Your task to perform on an android device: Clear the shopping cart on amazon.com. Add "apple airpods pro" to the cart on amazon.com, then select checkout. Image 0: 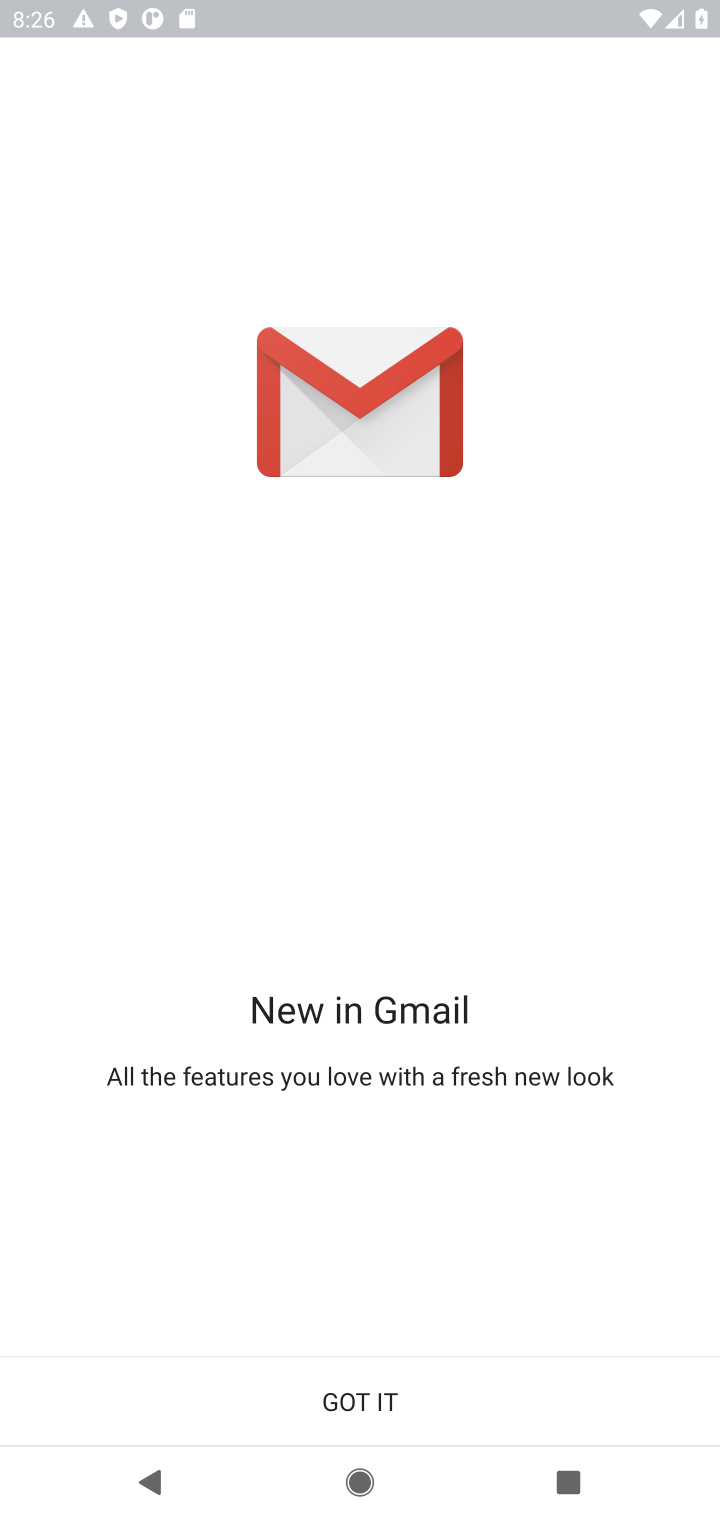
Step 0: press home button
Your task to perform on an android device: Clear the shopping cart on amazon.com. Add "apple airpods pro" to the cart on amazon.com, then select checkout. Image 1: 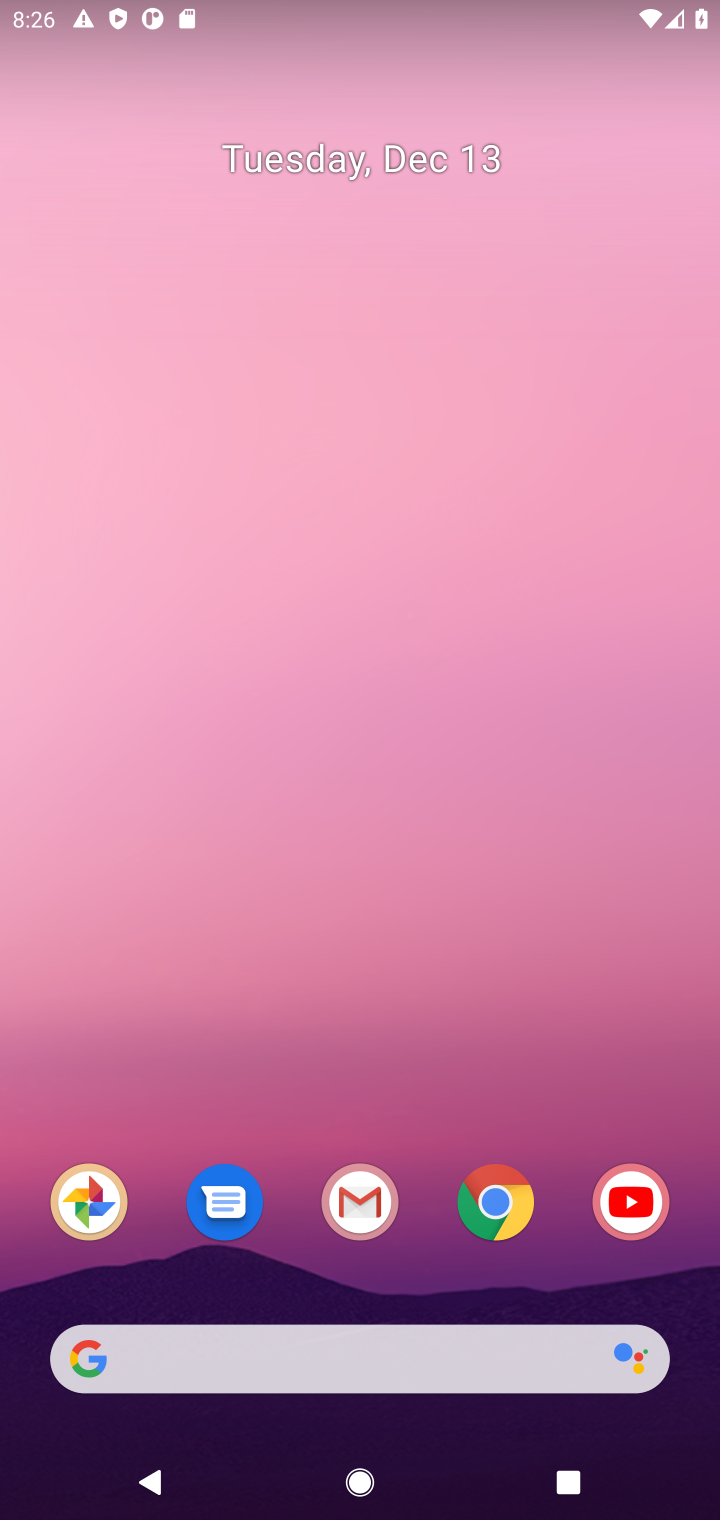
Step 1: click (518, 1226)
Your task to perform on an android device: Clear the shopping cart on amazon.com. Add "apple airpods pro" to the cart on amazon.com, then select checkout. Image 2: 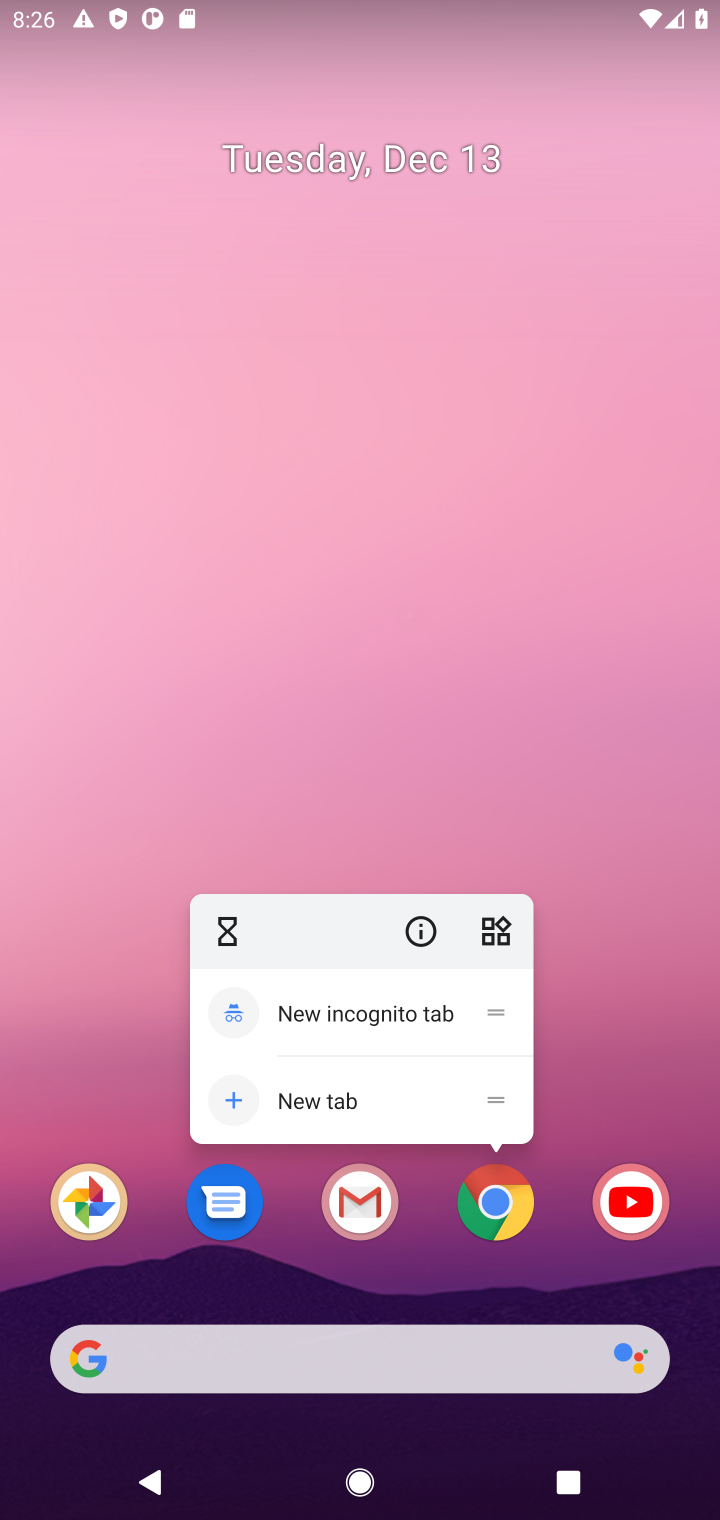
Step 2: click (539, 1235)
Your task to perform on an android device: Clear the shopping cart on amazon.com. Add "apple airpods pro" to the cart on amazon.com, then select checkout. Image 3: 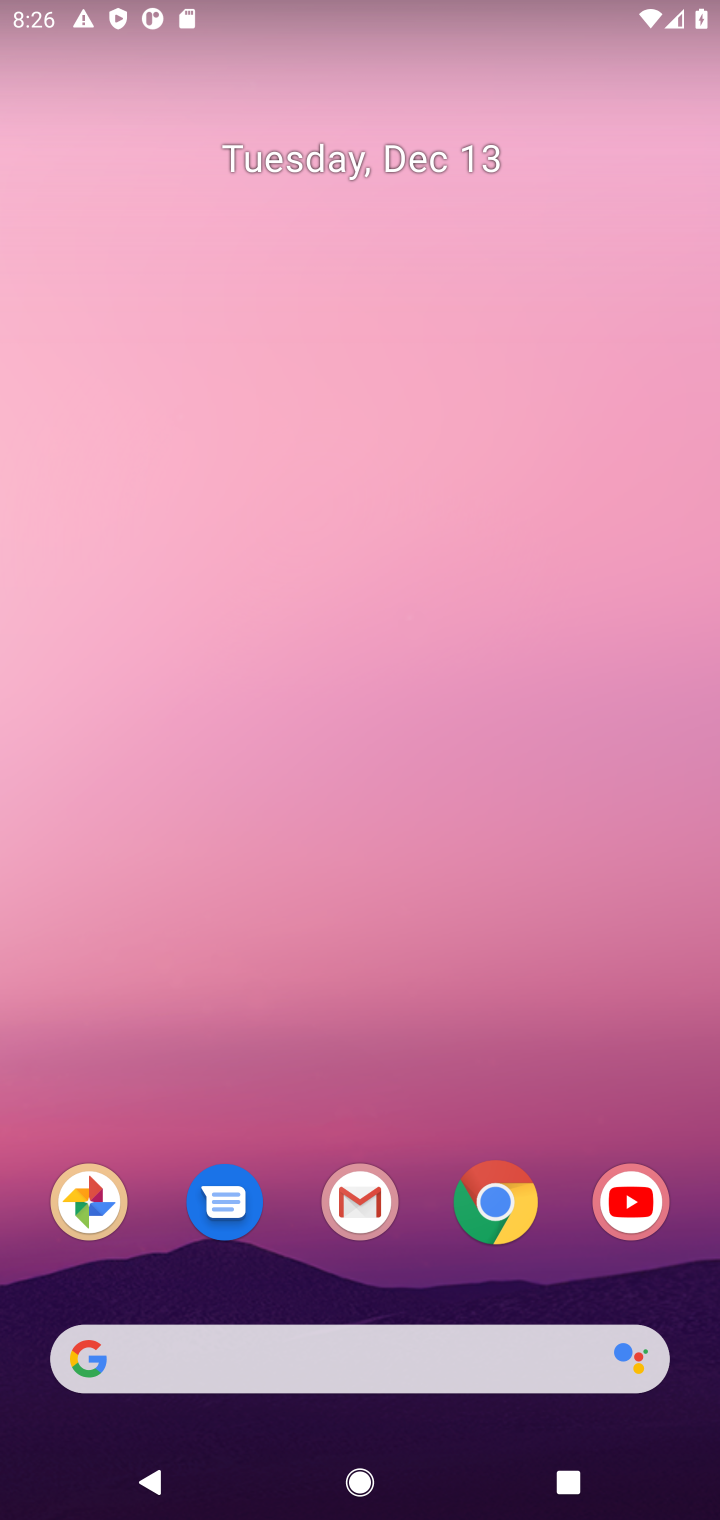
Step 3: click (485, 1219)
Your task to perform on an android device: Clear the shopping cart on amazon.com. Add "apple airpods pro" to the cart on amazon.com, then select checkout. Image 4: 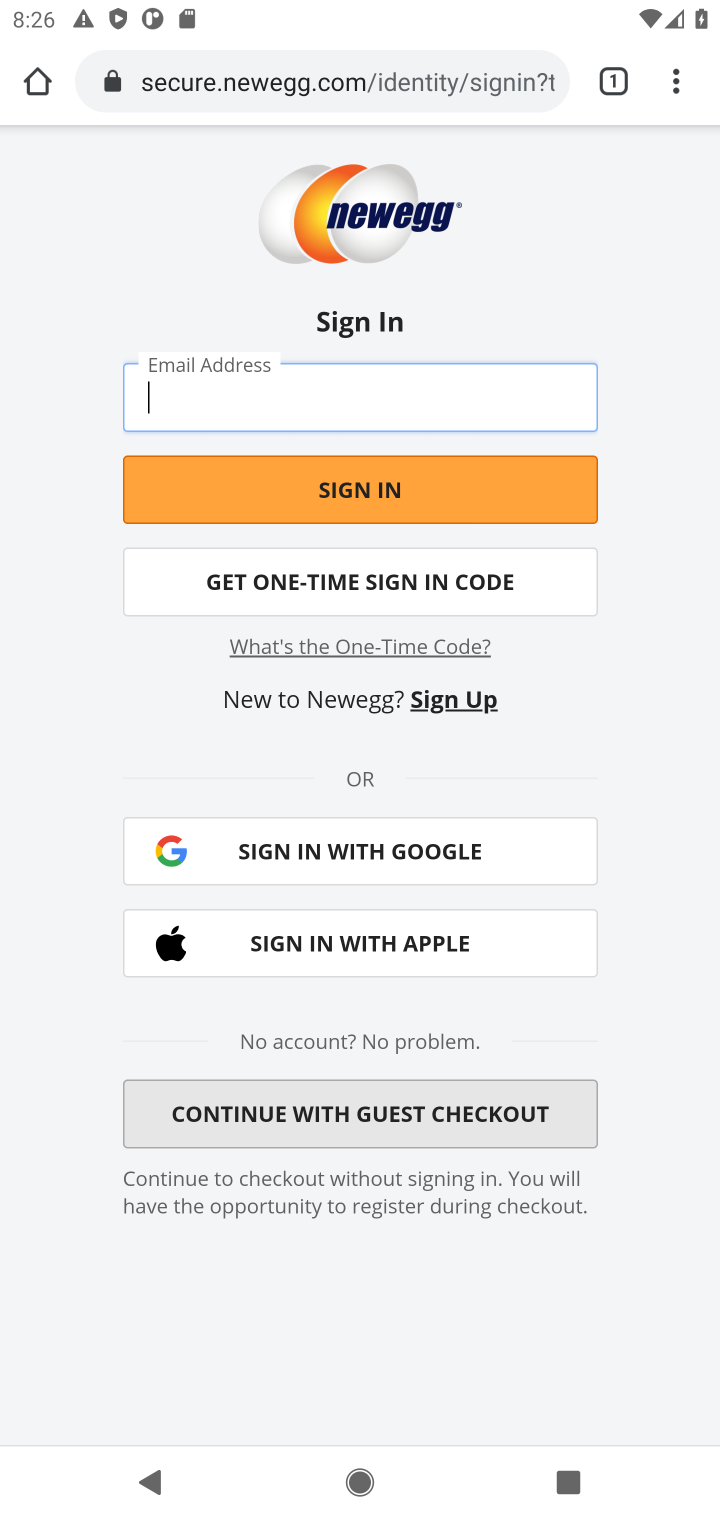
Step 4: click (393, 83)
Your task to perform on an android device: Clear the shopping cart on amazon.com. Add "apple airpods pro" to the cart on amazon.com, then select checkout. Image 5: 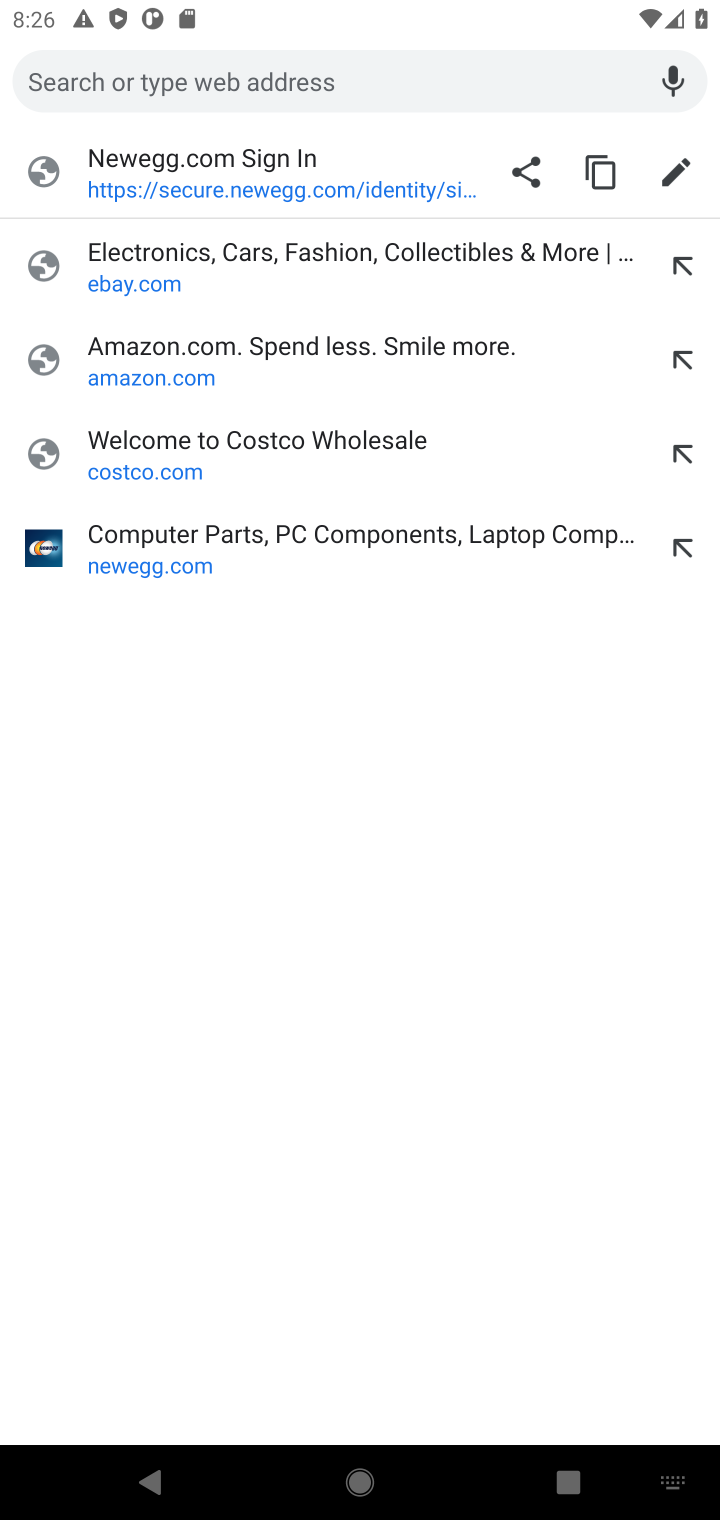
Step 5: click (141, 375)
Your task to perform on an android device: Clear the shopping cart on amazon.com. Add "apple airpods pro" to the cart on amazon.com, then select checkout. Image 6: 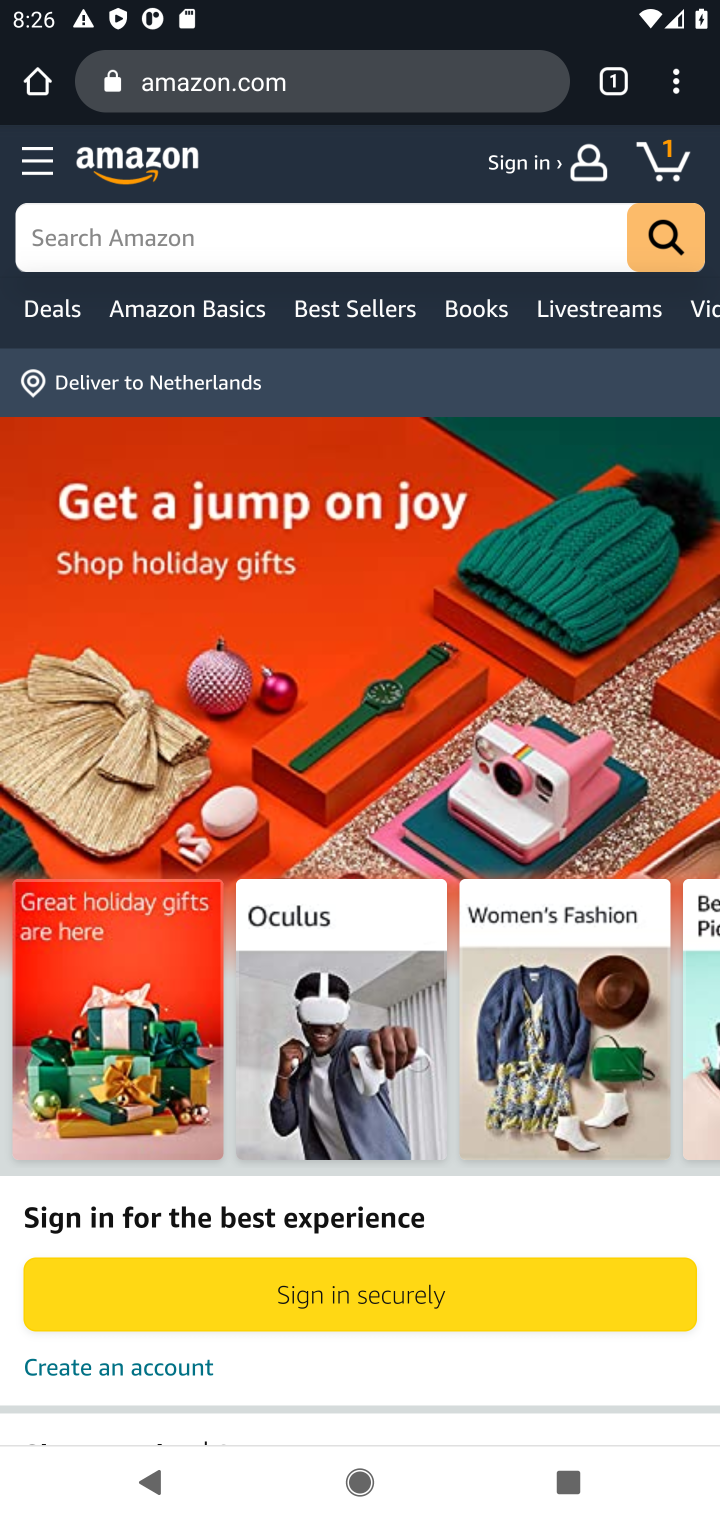
Step 6: click (663, 152)
Your task to perform on an android device: Clear the shopping cart on amazon.com. Add "apple airpods pro" to the cart on amazon.com, then select checkout. Image 7: 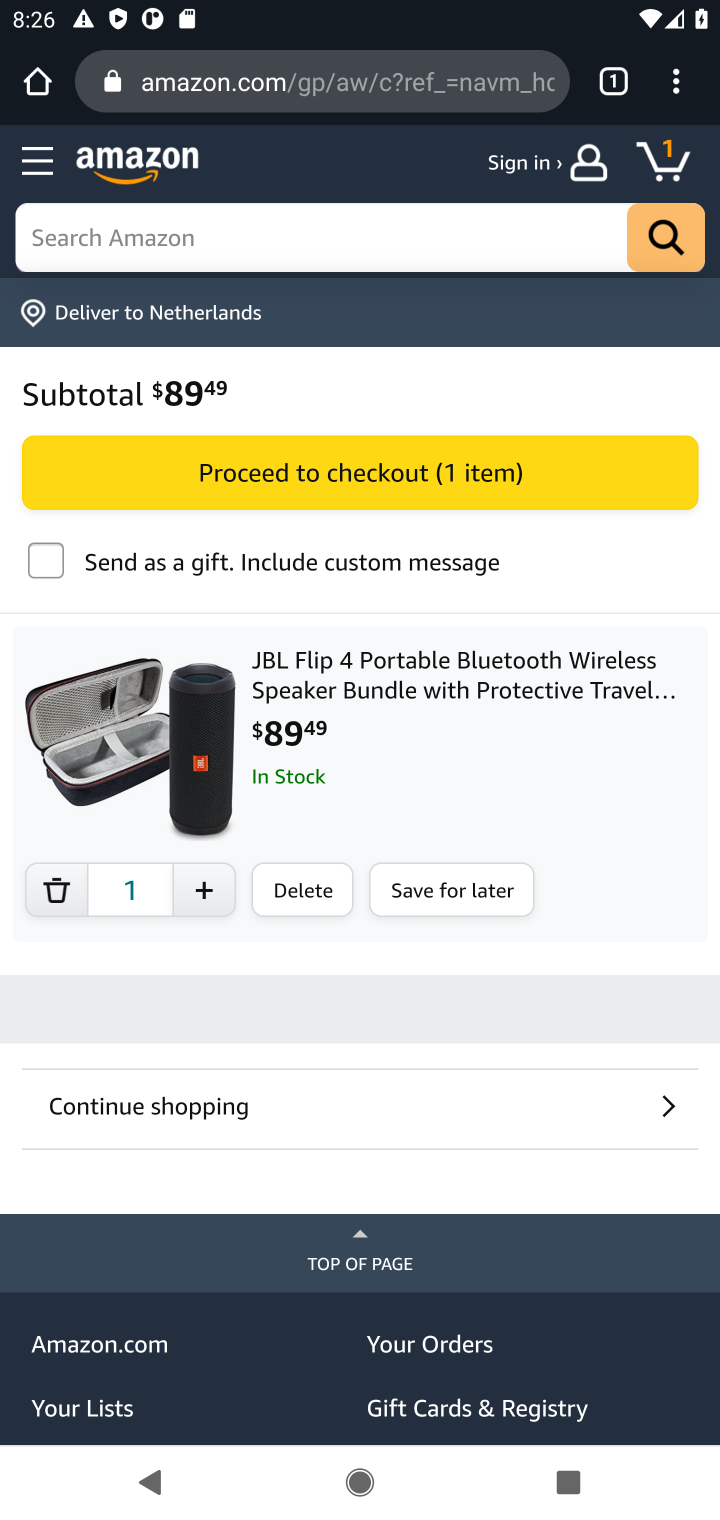
Step 7: click (310, 889)
Your task to perform on an android device: Clear the shopping cart on amazon.com. Add "apple airpods pro" to the cart on amazon.com, then select checkout. Image 8: 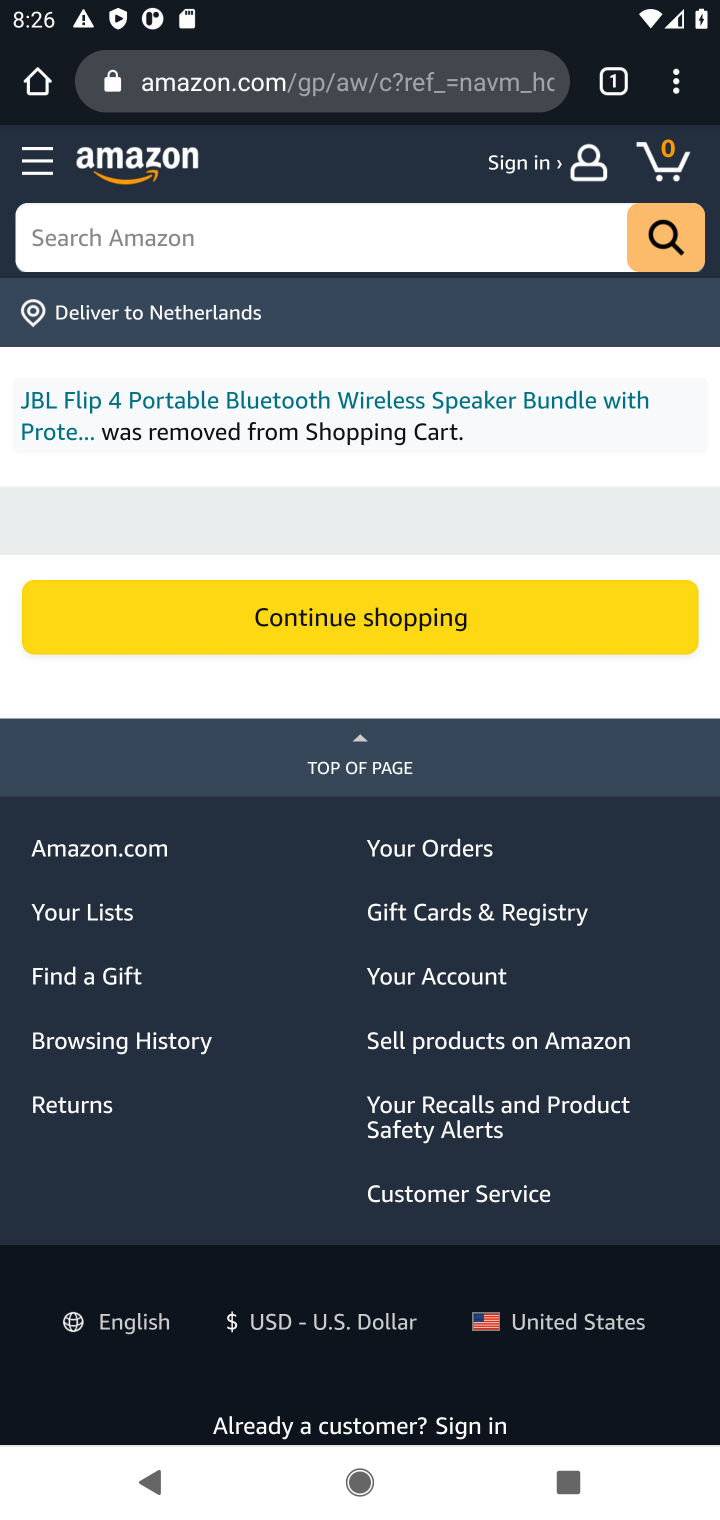
Step 8: click (550, 244)
Your task to perform on an android device: Clear the shopping cart on amazon.com. Add "apple airpods pro" to the cart on amazon.com, then select checkout. Image 9: 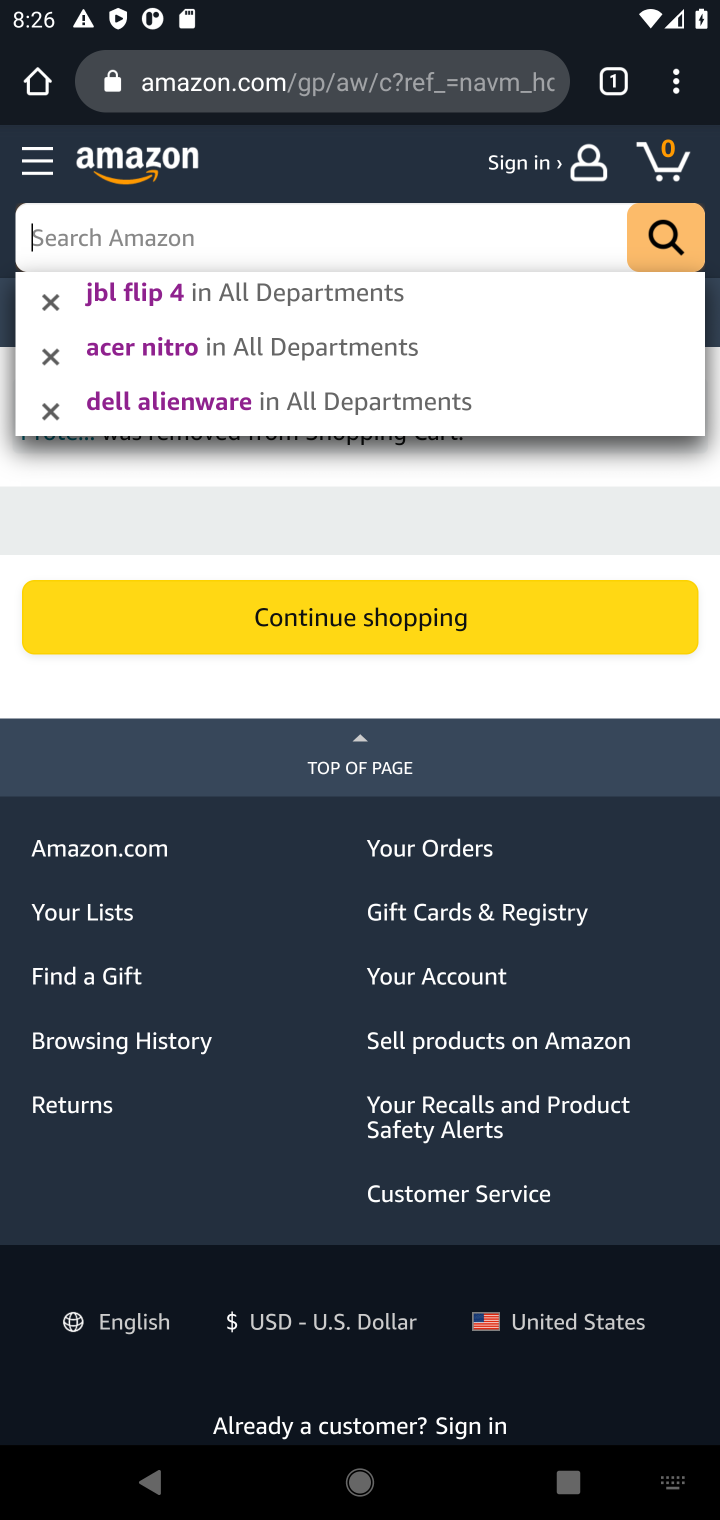
Step 9: type "apple airpod pro"
Your task to perform on an android device: Clear the shopping cart on amazon.com. Add "apple airpods pro" to the cart on amazon.com, then select checkout. Image 10: 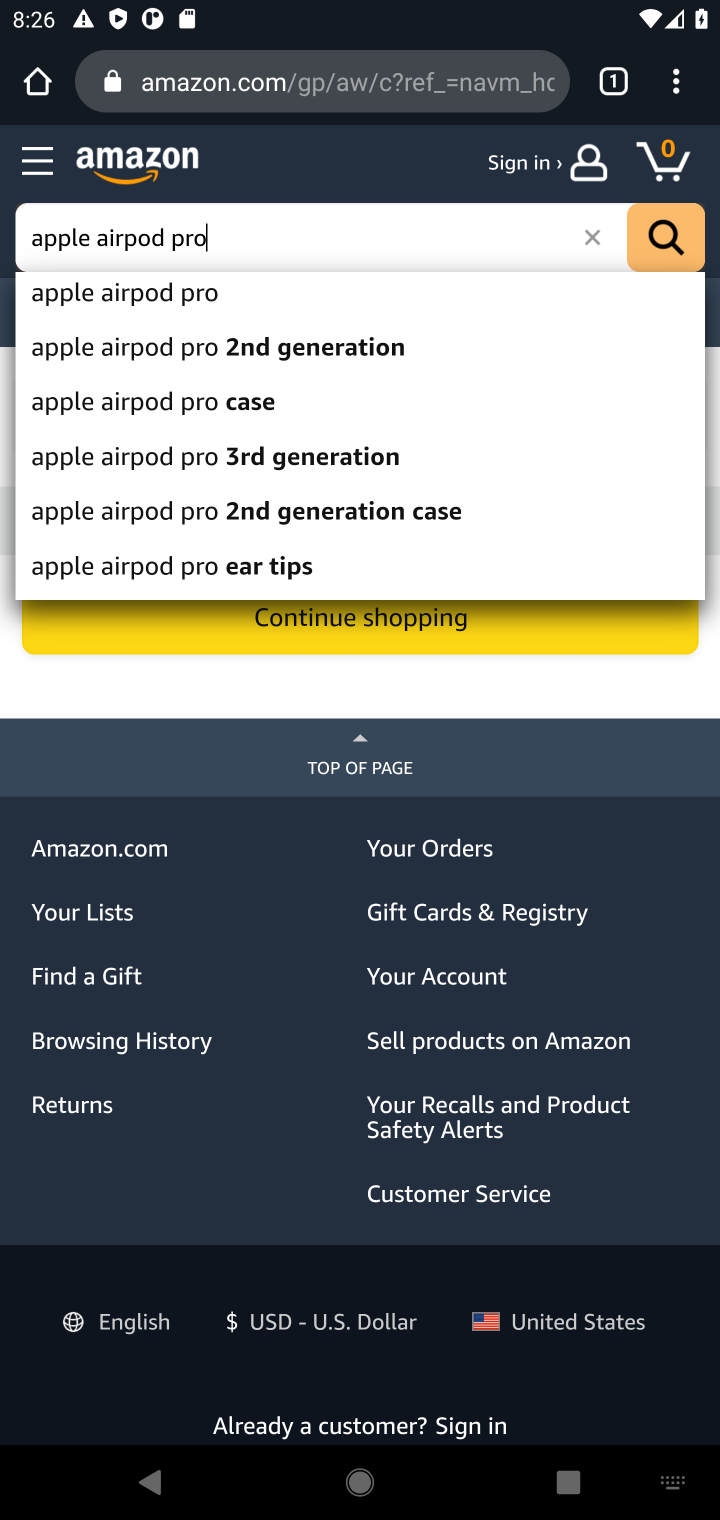
Step 10: click (680, 241)
Your task to perform on an android device: Clear the shopping cart on amazon.com. Add "apple airpods pro" to the cart on amazon.com, then select checkout. Image 11: 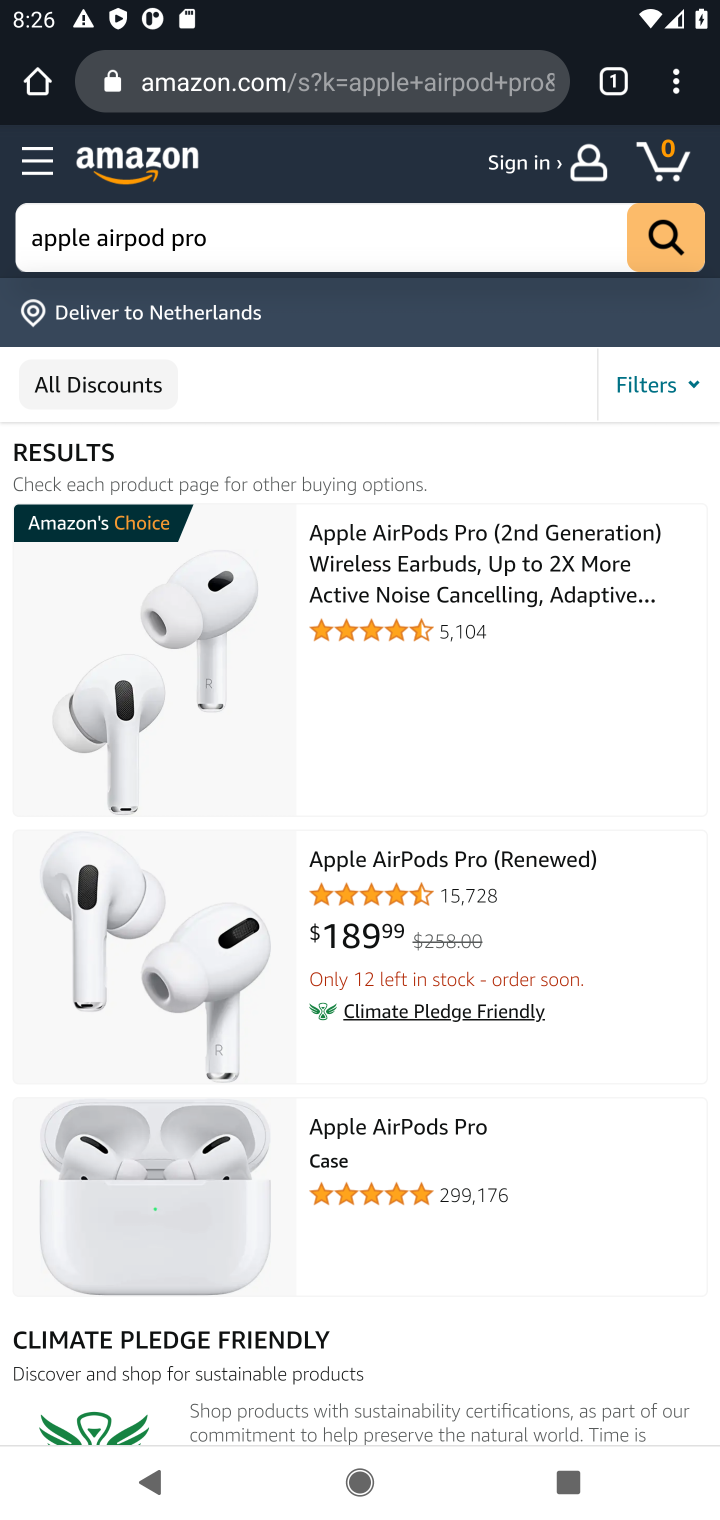
Step 11: click (366, 607)
Your task to perform on an android device: Clear the shopping cart on amazon.com. Add "apple airpods pro" to the cart on amazon.com, then select checkout. Image 12: 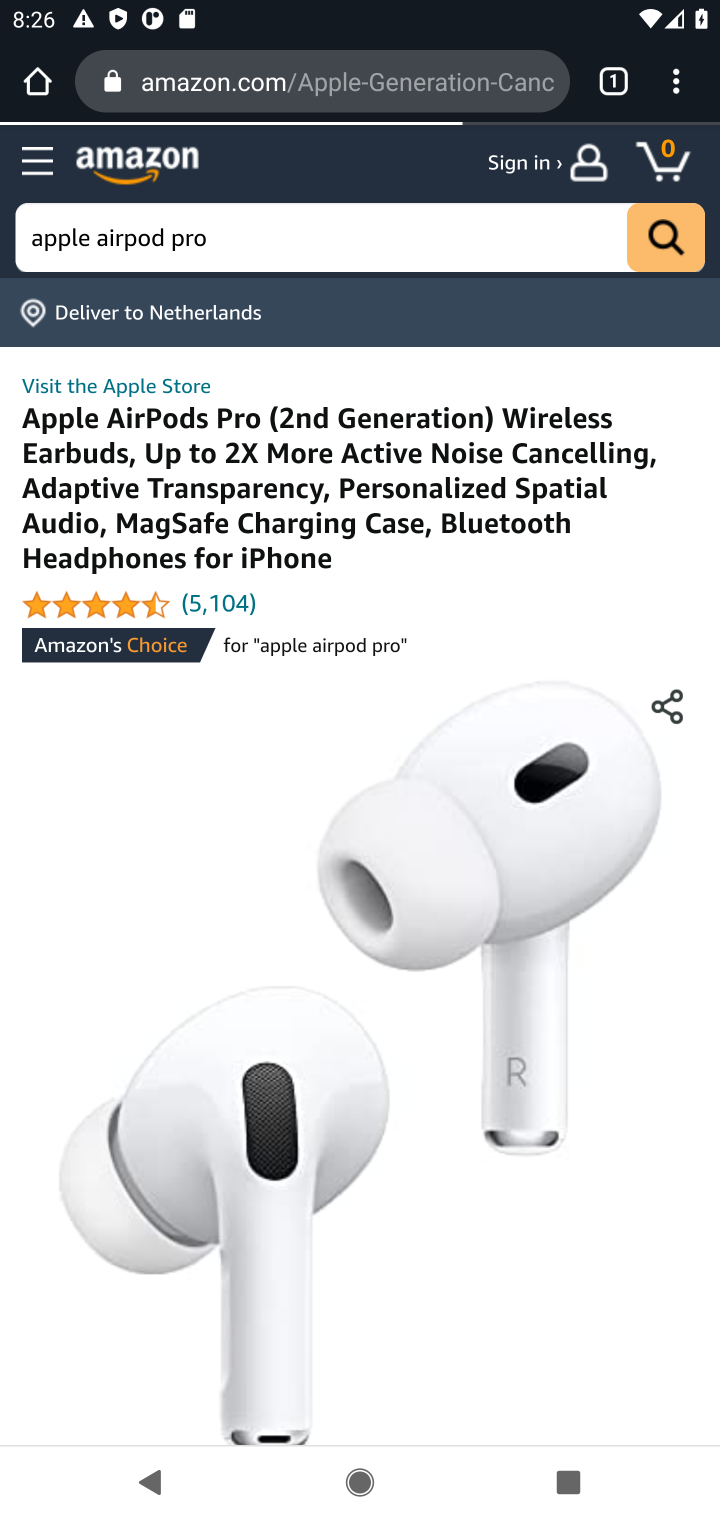
Step 12: drag from (531, 1257) to (562, 808)
Your task to perform on an android device: Clear the shopping cart on amazon.com. Add "apple airpods pro" to the cart on amazon.com, then select checkout. Image 13: 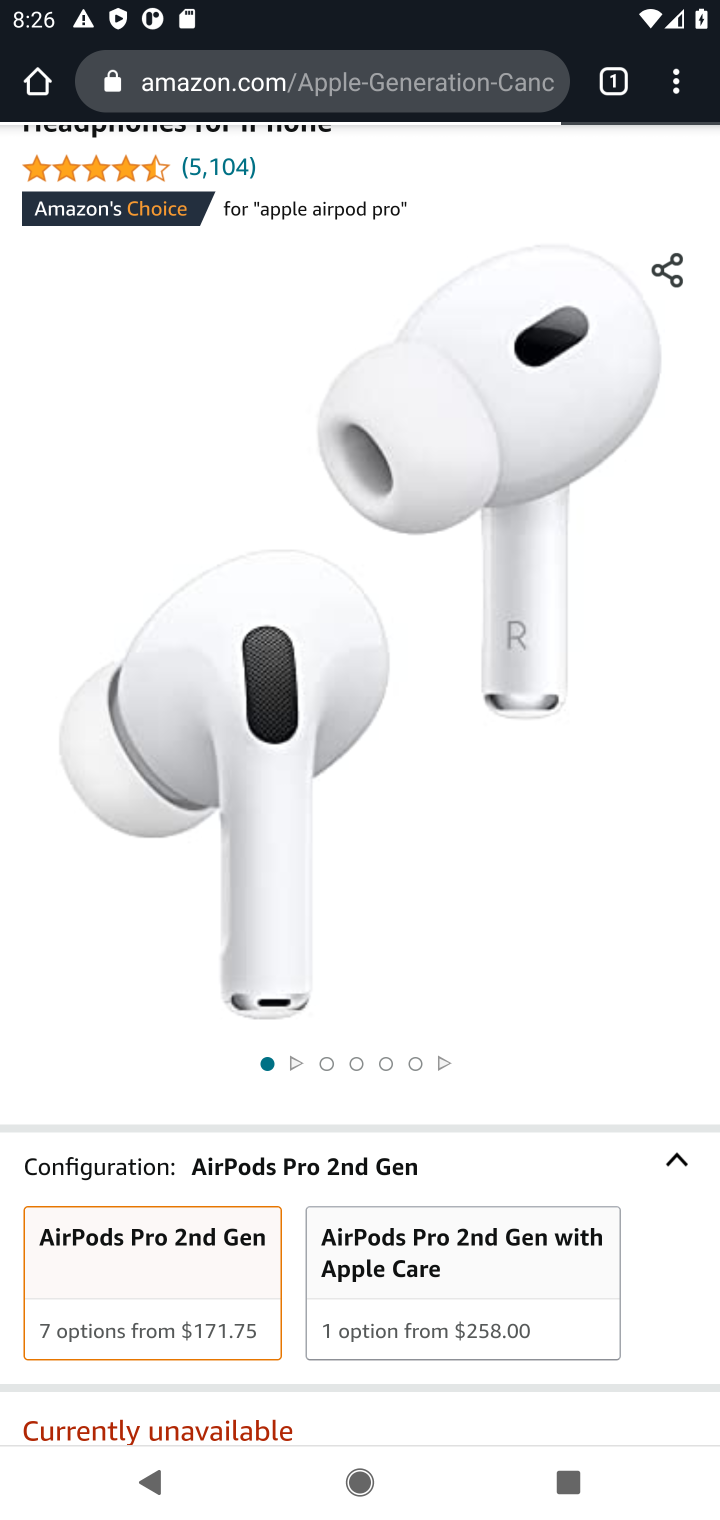
Step 13: drag from (525, 959) to (544, 512)
Your task to perform on an android device: Clear the shopping cart on amazon.com. Add "apple airpods pro" to the cart on amazon.com, then select checkout. Image 14: 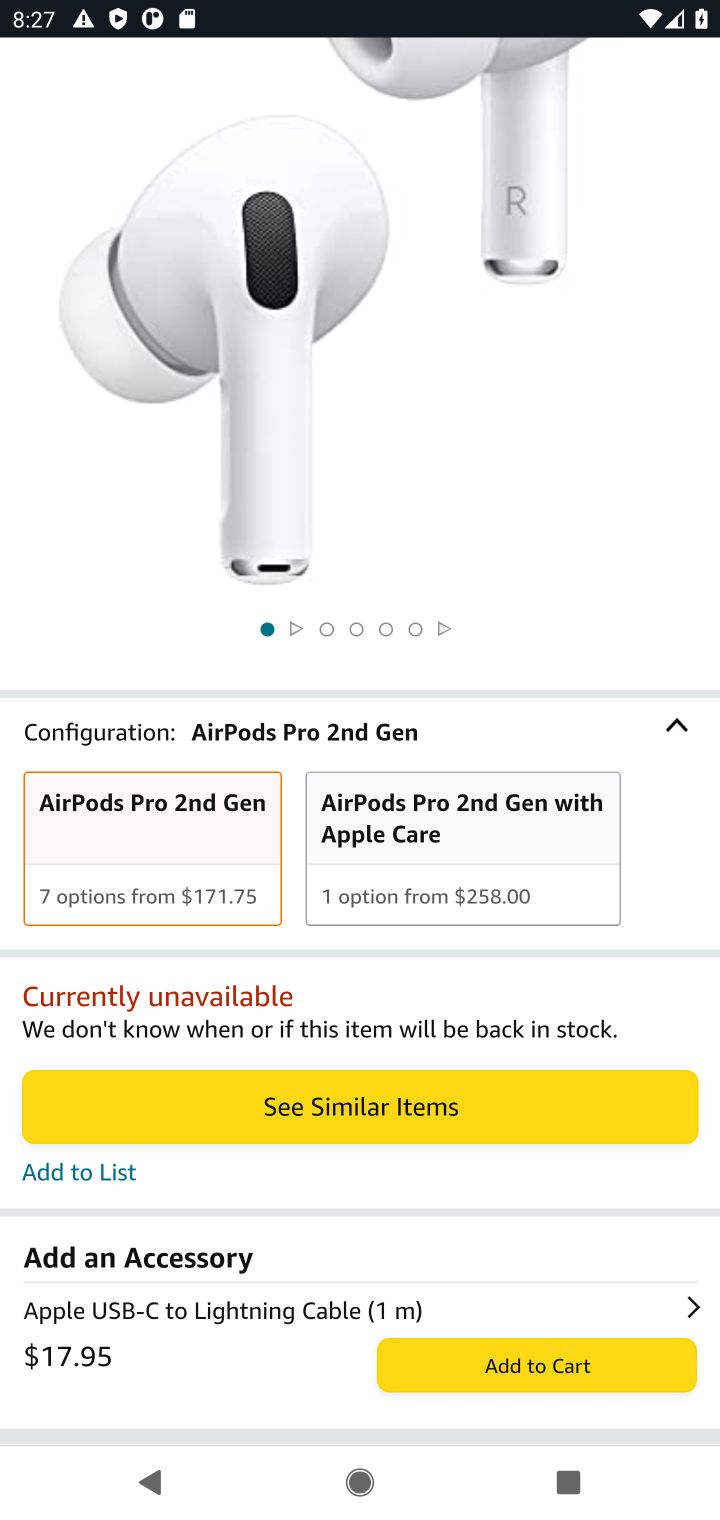
Step 14: drag from (556, 685) to (535, 1021)
Your task to perform on an android device: Clear the shopping cart on amazon.com. Add "apple airpods pro" to the cart on amazon.com, then select checkout. Image 15: 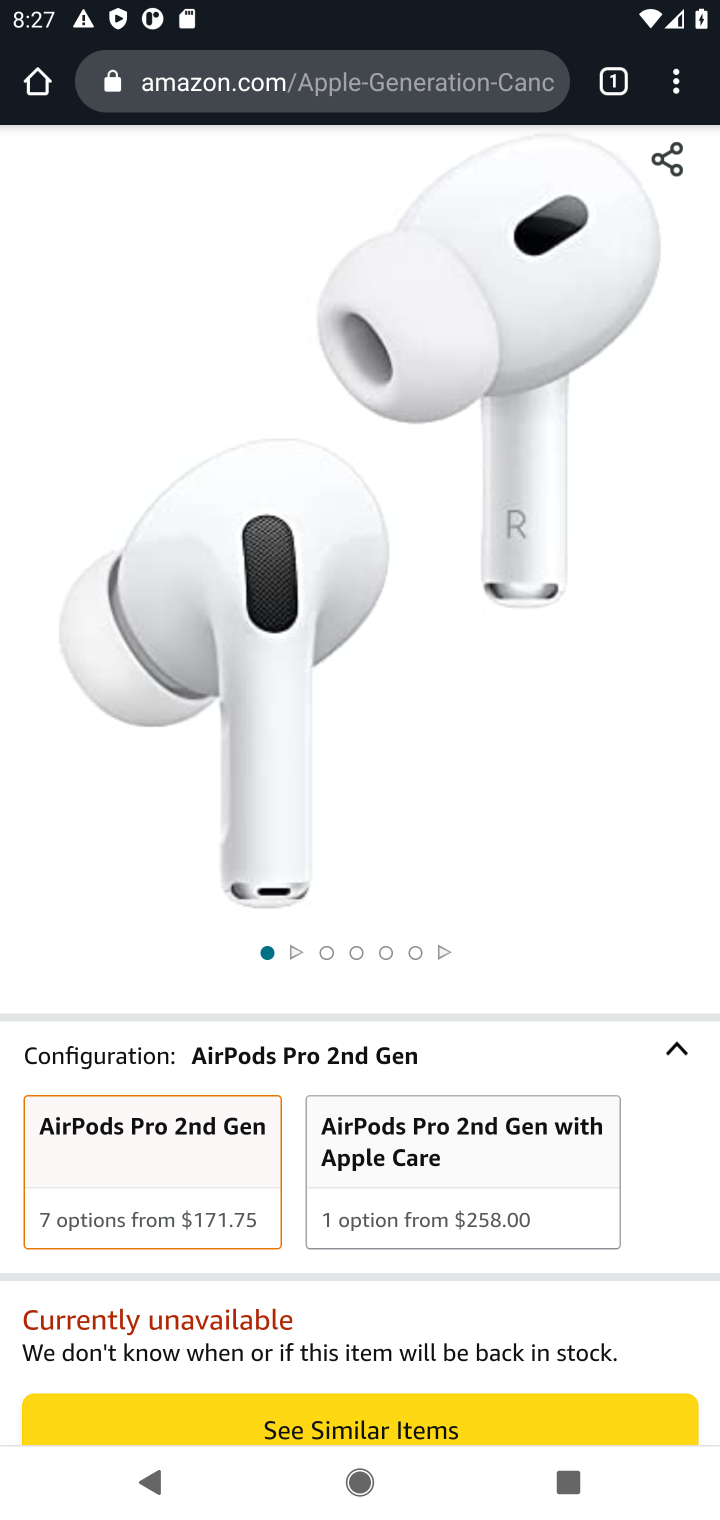
Step 15: press back button
Your task to perform on an android device: Clear the shopping cart on amazon.com. Add "apple airpods pro" to the cart on amazon.com, then select checkout. Image 16: 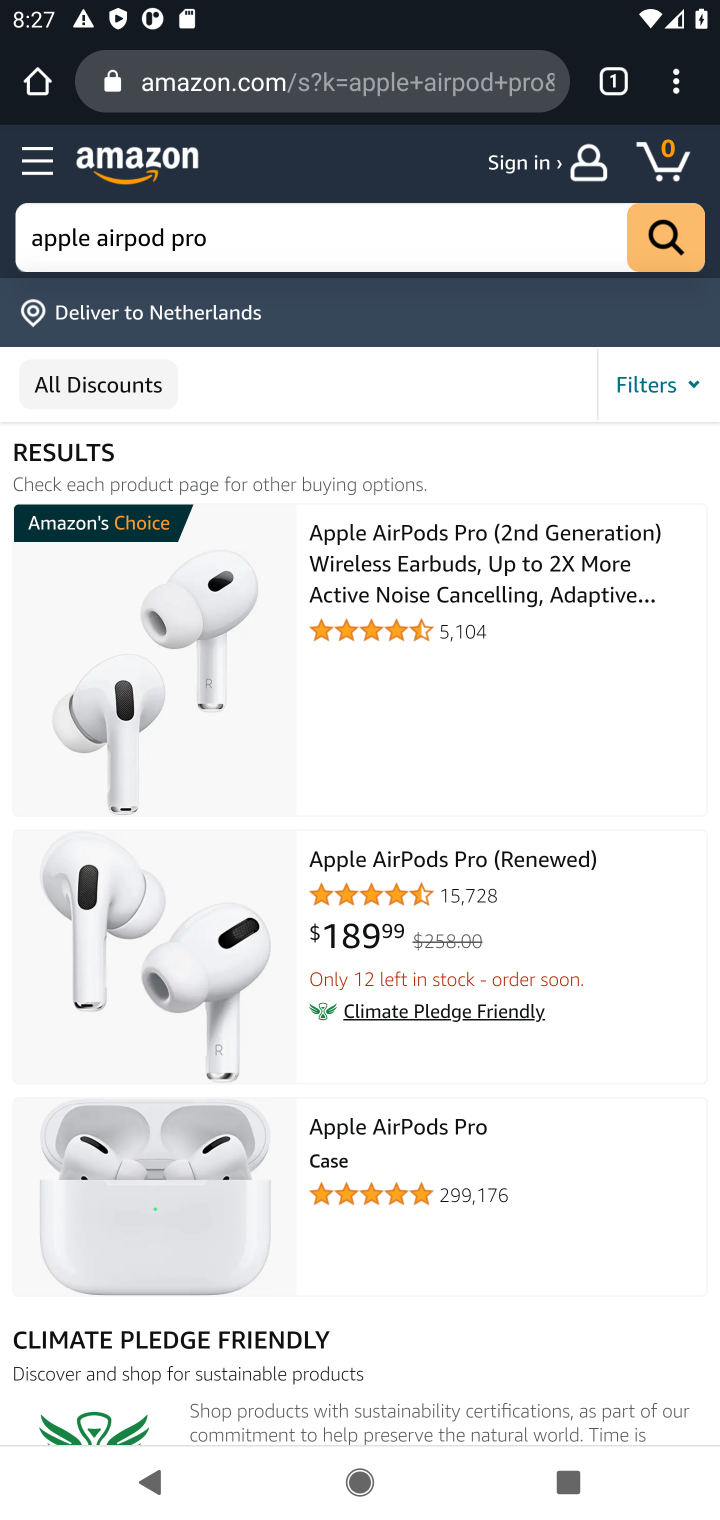
Step 16: drag from (578, 1109) to (631, 651)
Your task to perform on an android device: Clear the shopping cart on amazon.com. Add "apple airpods pro" to the cart on amazon.com, then select checkout. Image 17: 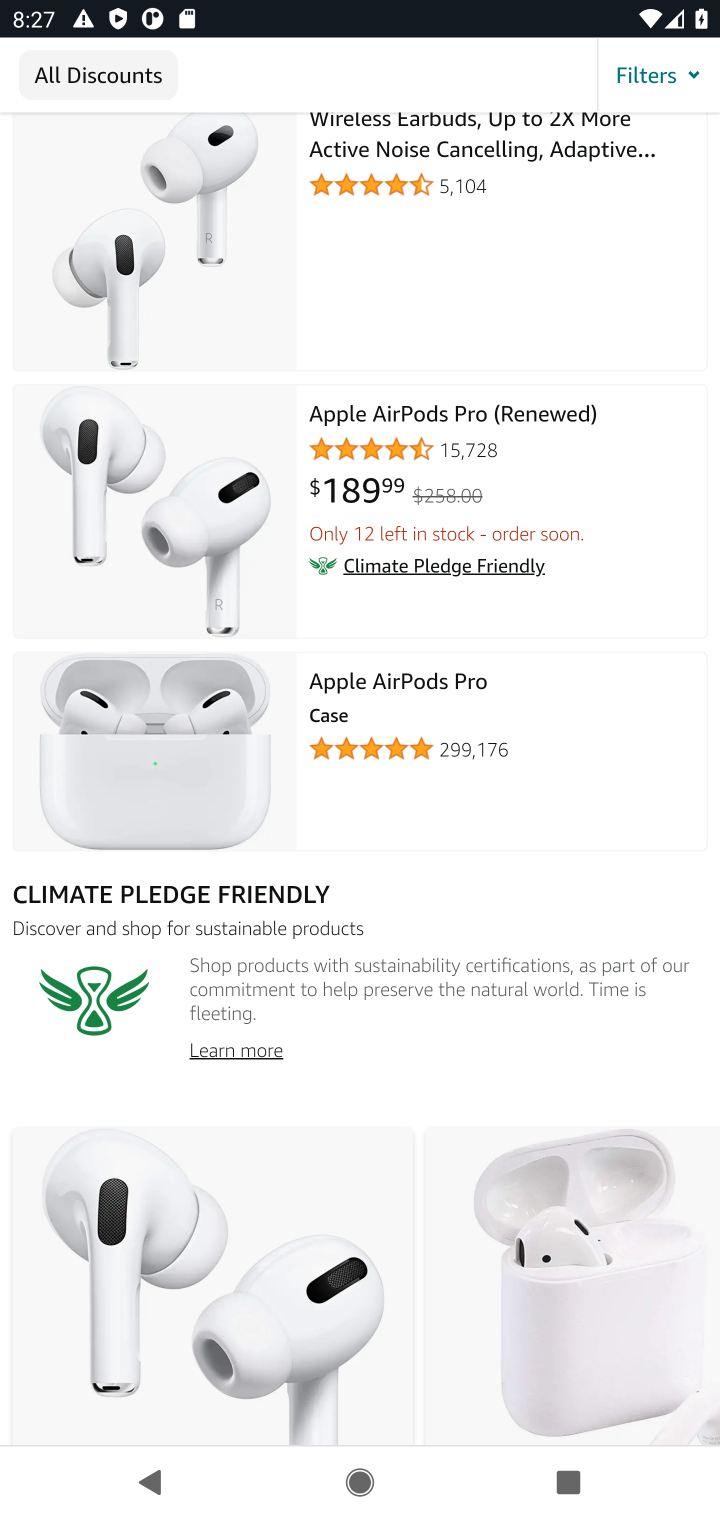
Step 17: drag from (460, 1081) to (615, 42)
Your task to perform on an android device: Clear the shopping cart on amazon.com. Add "apple airpods pro" to the cart on amazon.com, then select checkout. Image 18: 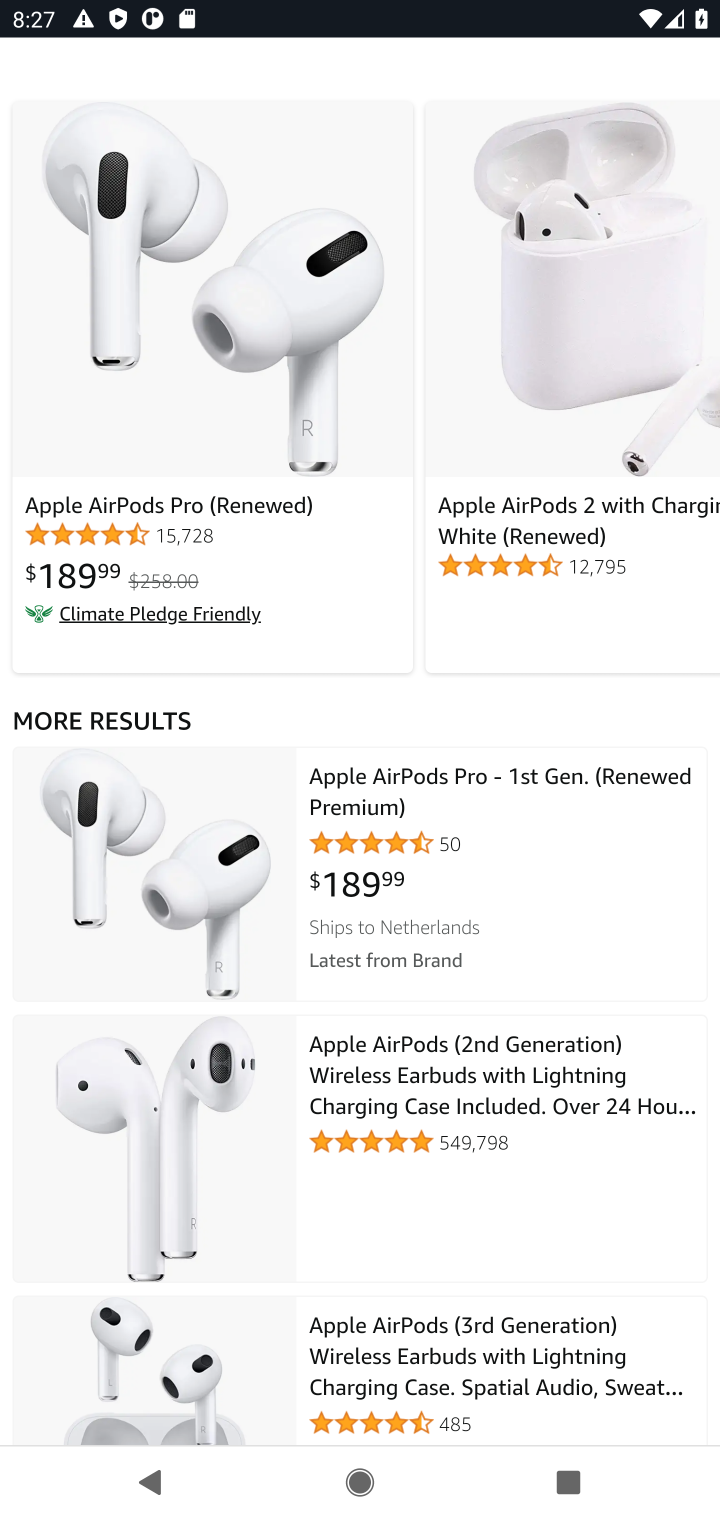
Step 18: click (350, 843)
Your task to perform on an android device: Clear the shopping cart on amazon.com. Add "apple airpods pro" to the cart on amazon.com, then select checkout. Image 19: 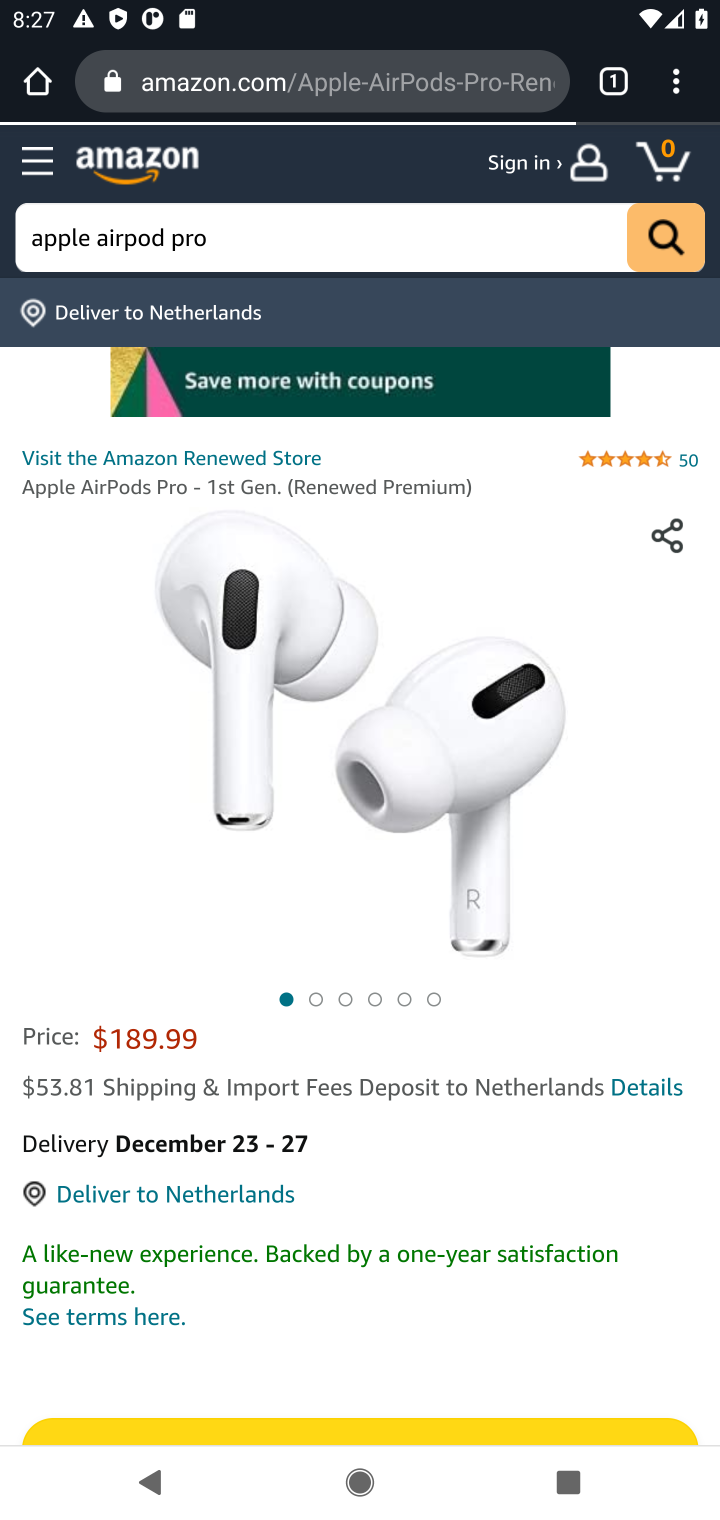
Step 19: drag from (638, 1231) to (692, 775)
Your task to perform on an android device: Clear the shopping cart on amazon.com. Add "apple airpods pro" to the cart on amazon.com, then select checkout. Image 20: 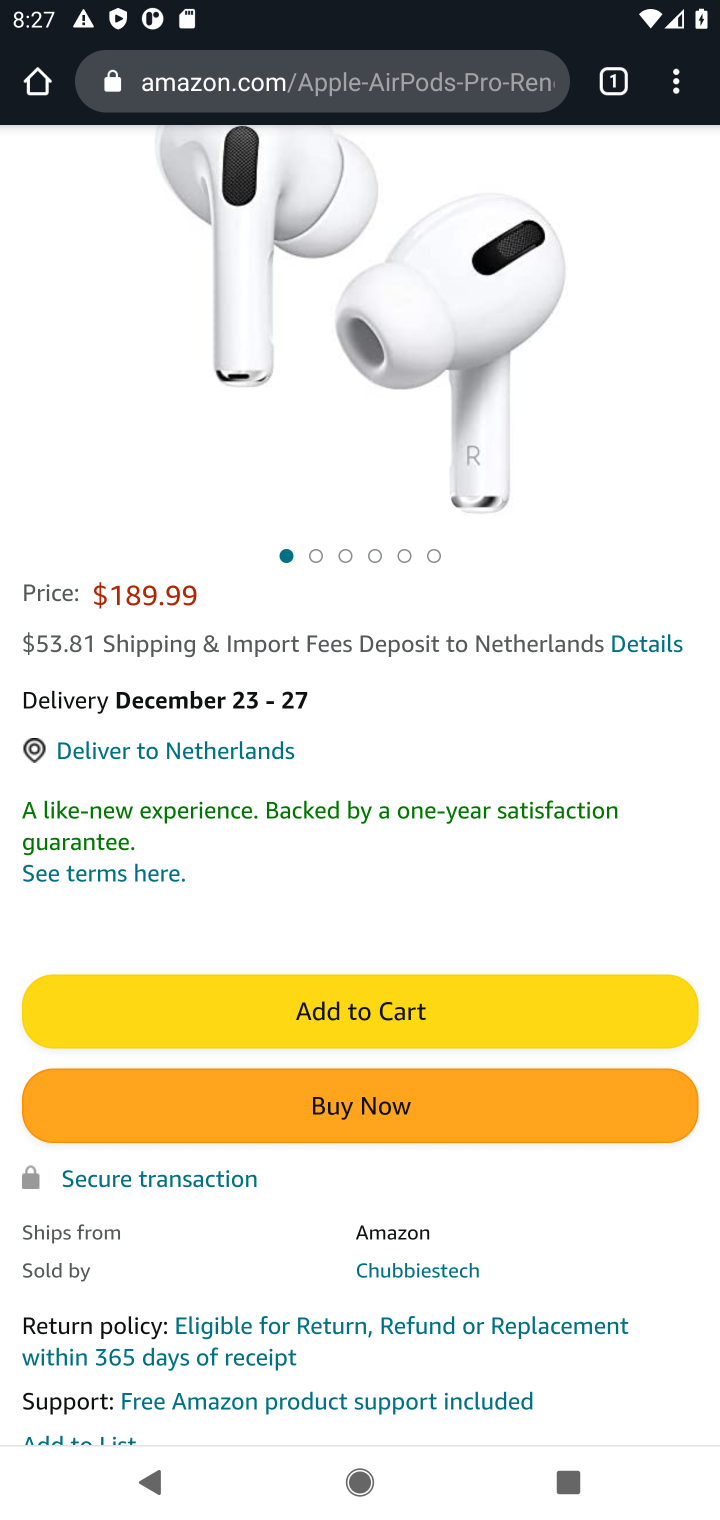
Step 20: click (459, 996)
Your task to perform on an android device: Clear the shopping cart on amazon.com. Add "apple airpods pro" to the cart on amazon.com, then select checkout. Image 21: 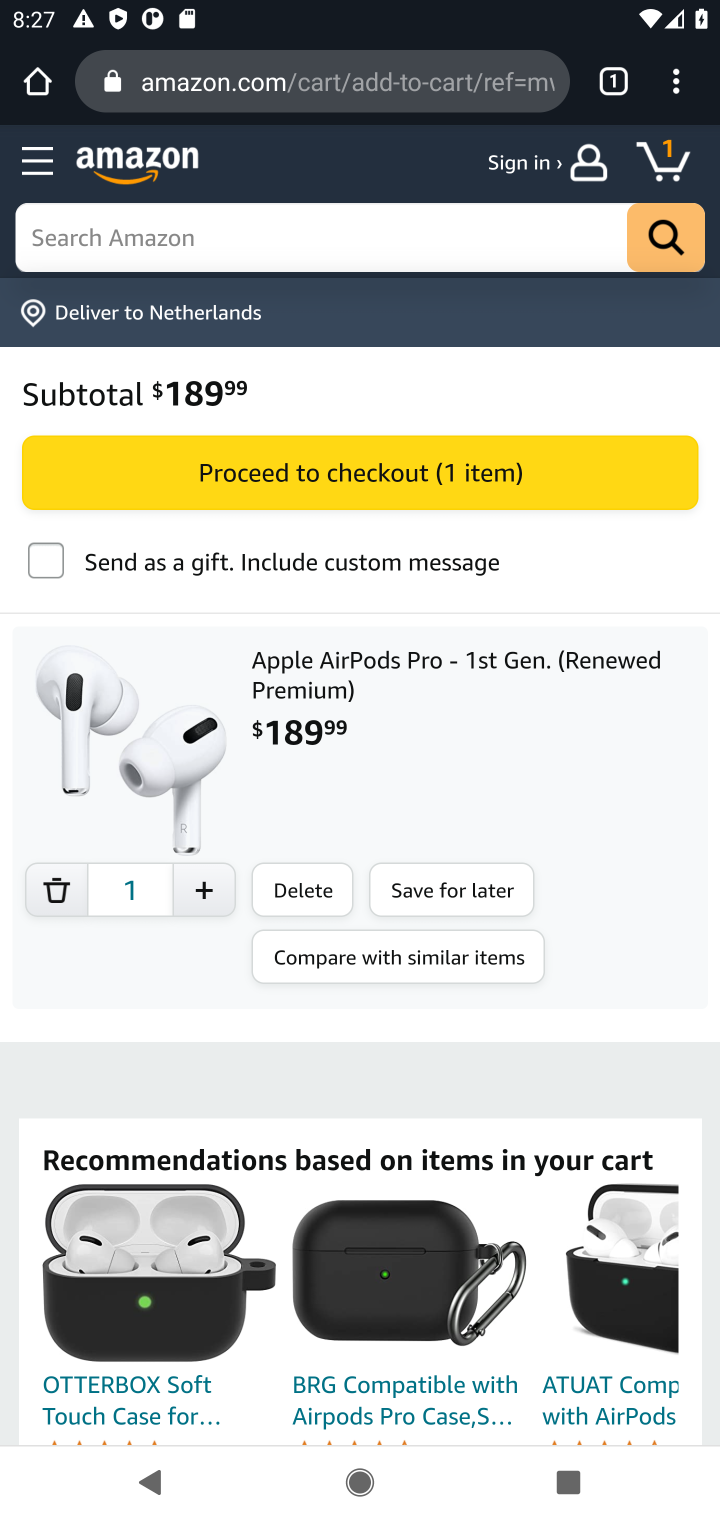
Step 21: click (385, 487)
Your task to perform on an android device: Clear the shopping cart on amazon.com. Add "apple airpods pro" to the cart on amazon.com, then select checkout. Image 22: 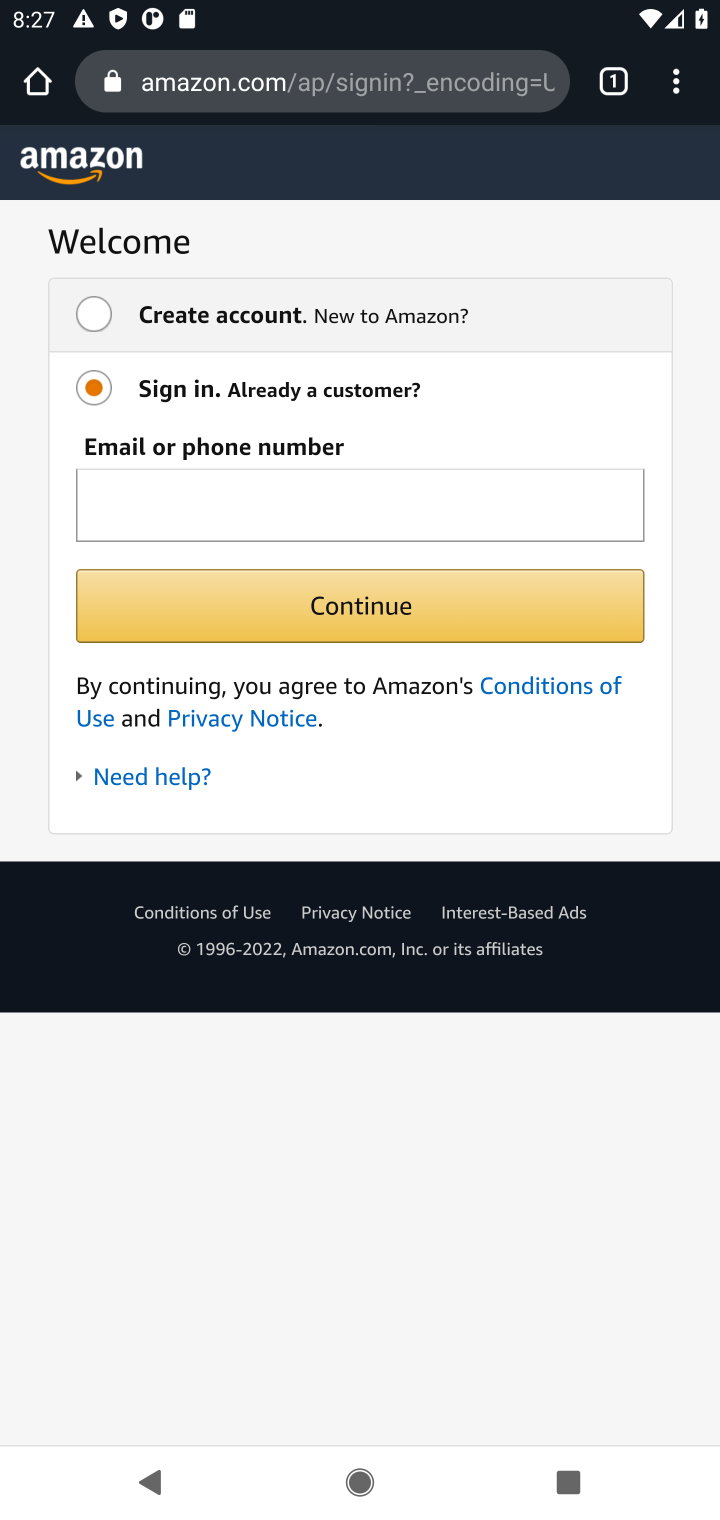
Step 22: task complete